Your task to perform on an android device: Show me popular games on the Play Store Image 0: 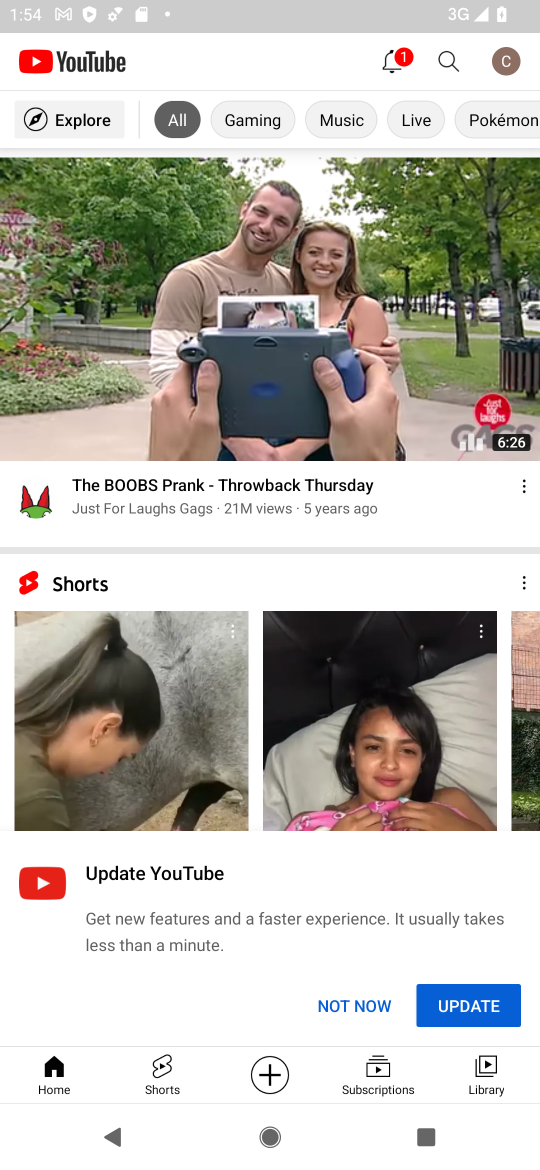
Step 0: press home button
Your task to perform on an android device: Show me popular games on the Play Store Image 1: 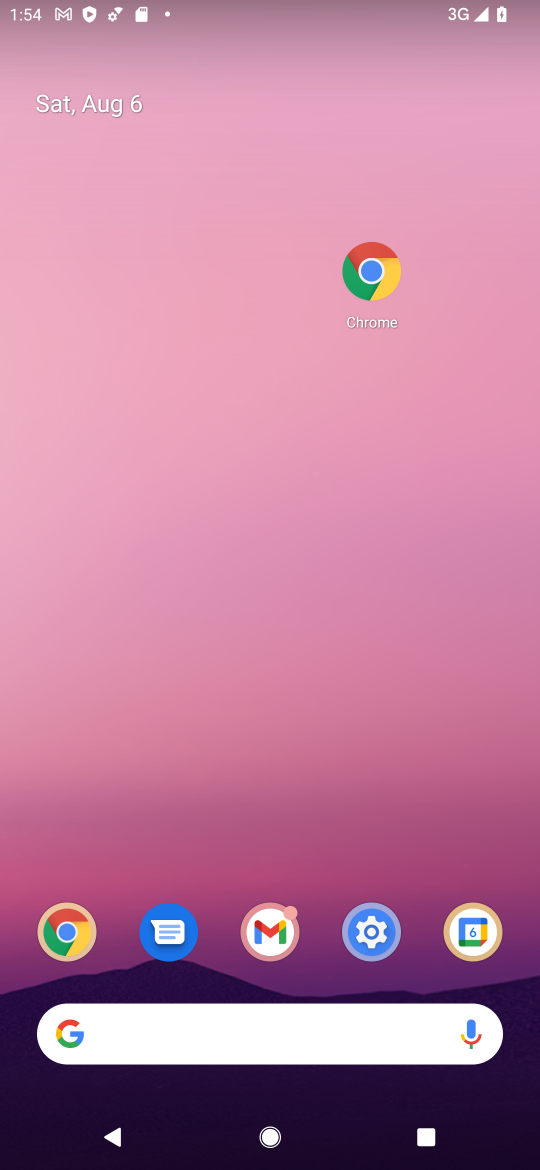
Step 1: drag from (316, 961) to (220, 7)
Your task to perform on an android device: Show me popular games on the Play Store Image 2: 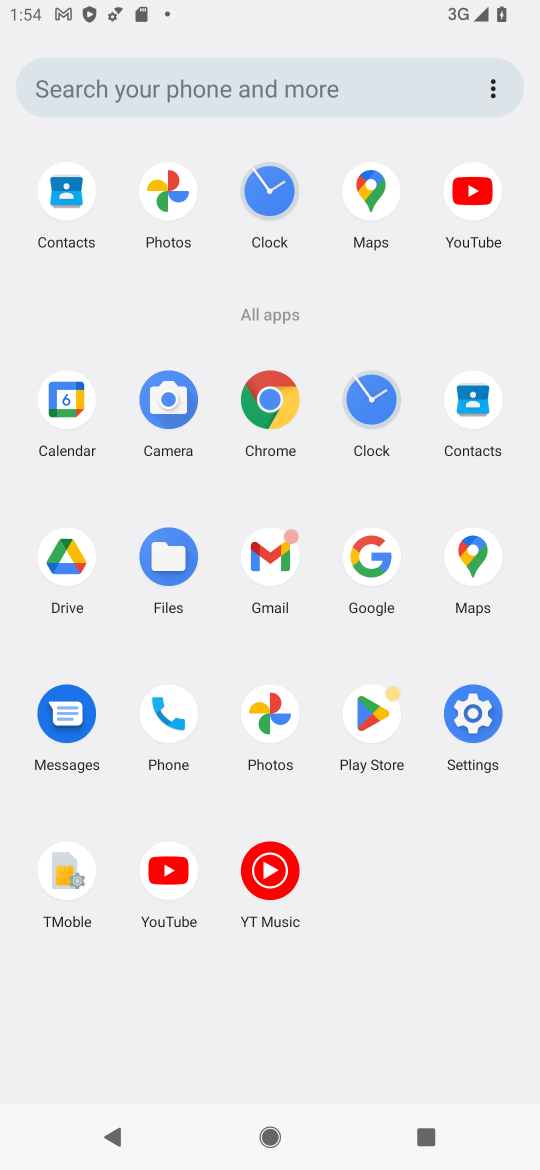
Step 2: click (359, 708)
Your task to perform on an android device: Show me popular games on the Play Store Image 3: 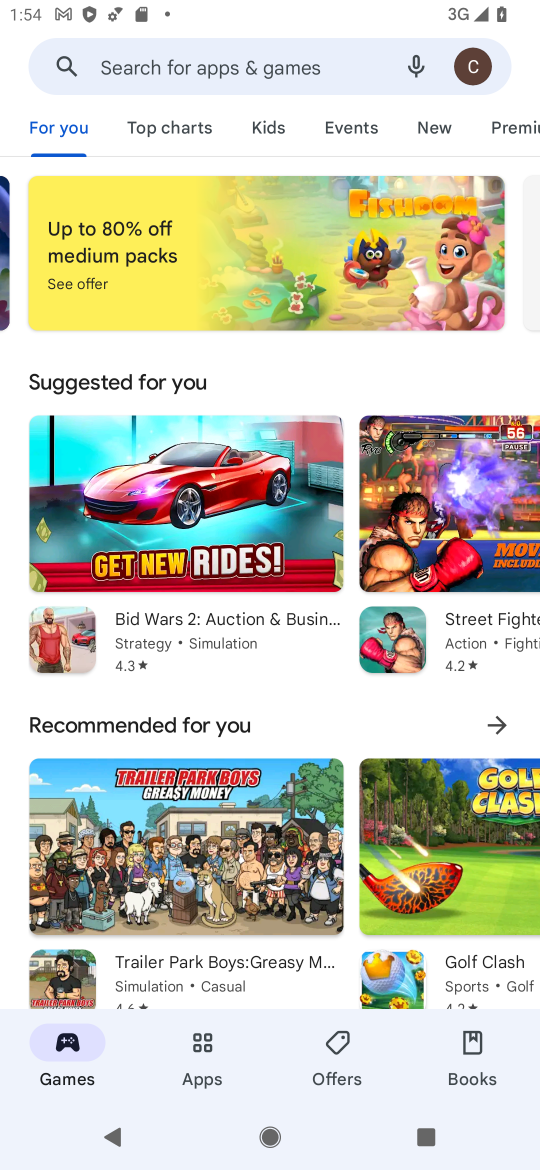
Step 3: click (308, 56)
Your task to perform on an android device: Show me popular games on the Play Store Image 4: 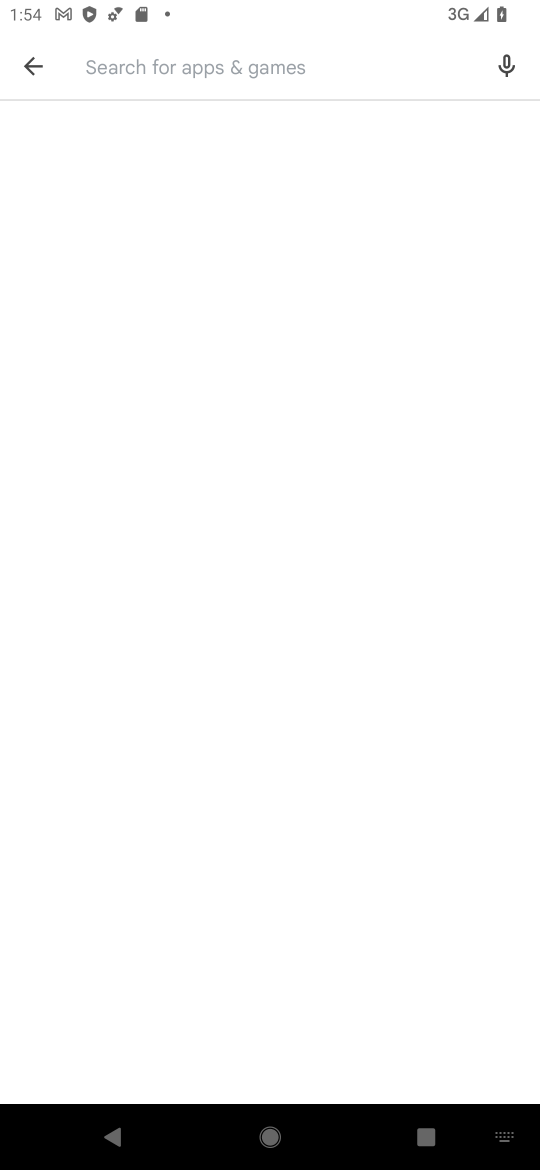
Step 4: type "popular games"
Your task to perform on an android device: Show me popular games on the Play Store Image 5: 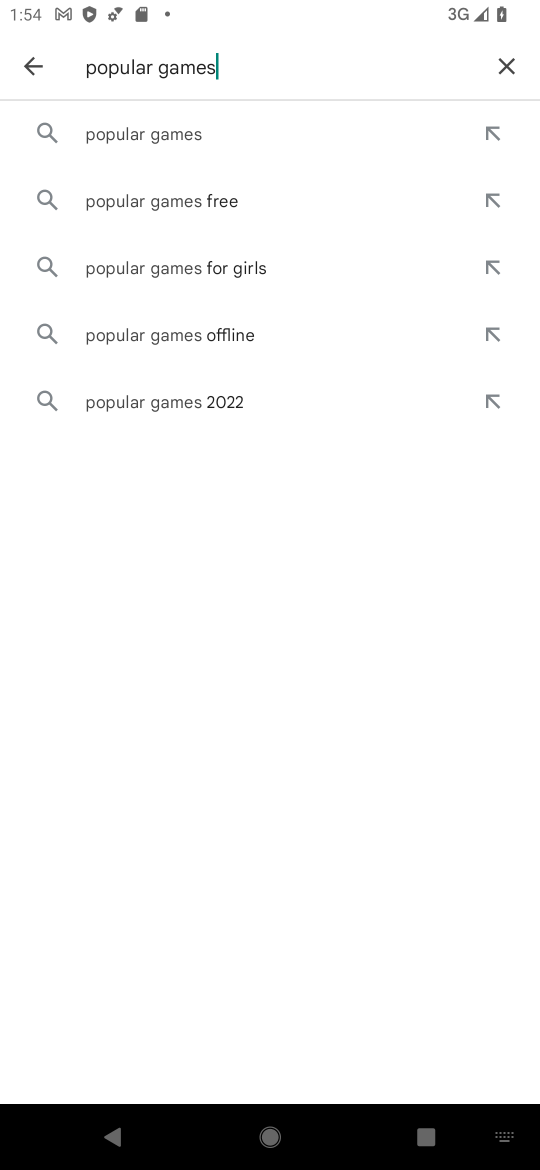
Step 5: click (143, 121)
Your task to perform on an android device: Show me popular games on the Play Store Image 6: 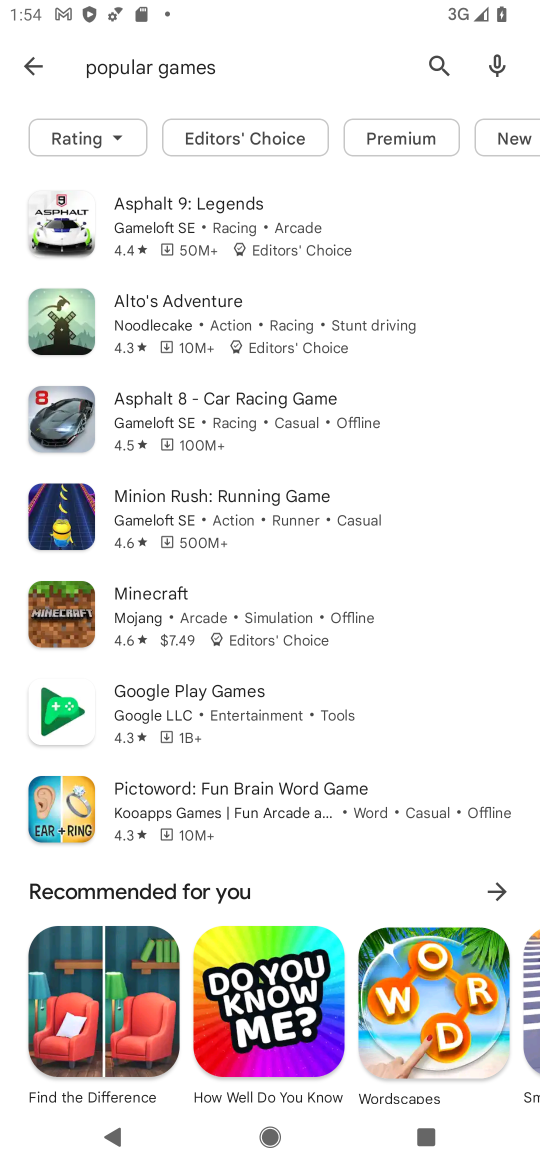
Step 6: task complete